Your task to perform on an android device: Play the last video I watched on Youtube Image 0: 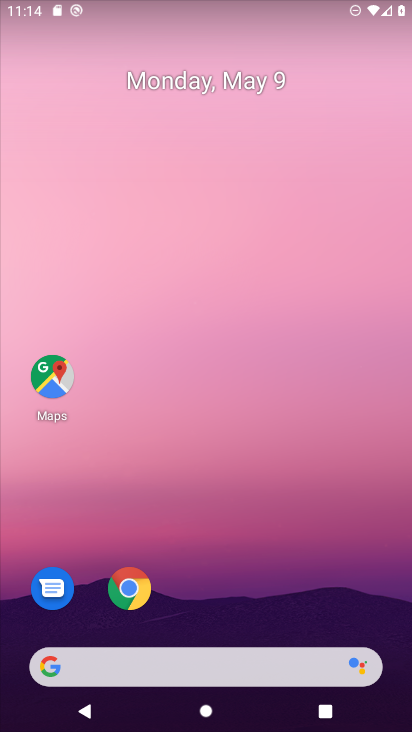
Step 0: drag from (305, 605) to (254, 241)
Your task to perform on an android device: Play the last video I watched on Youtube Image 1: 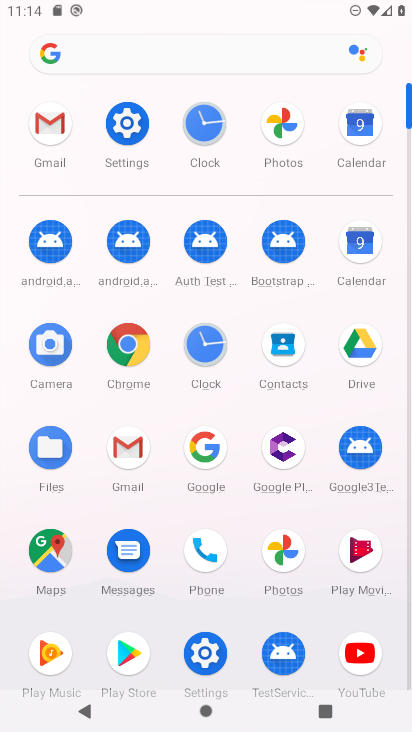
Step 1: click (363, 644)
Your task to perform on an android device: Play the last video I watched on Youtube Image 2: 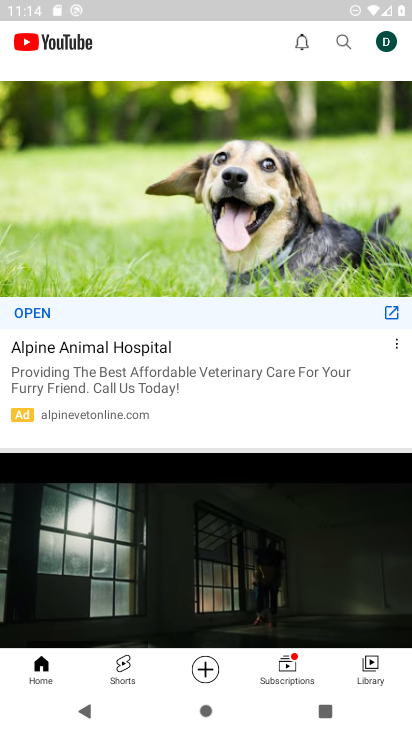
Step 2: click (378, 680)
Your task to perform on an android device: Play the last video I watched on Youtube Image 3: 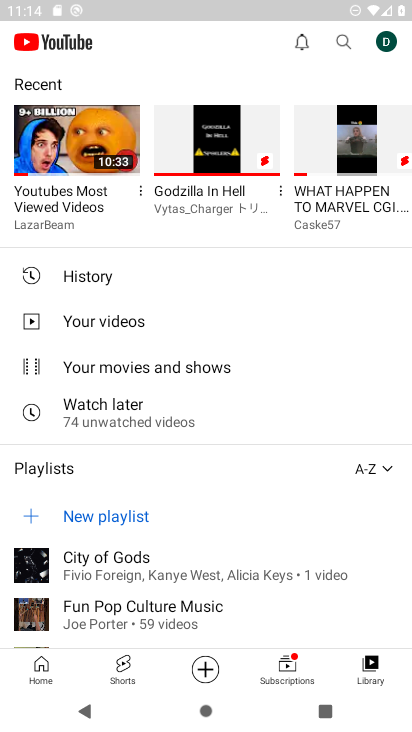
Step 3: task complete